Your task to perform on an android device: turn off notifications in google photos Image 0: 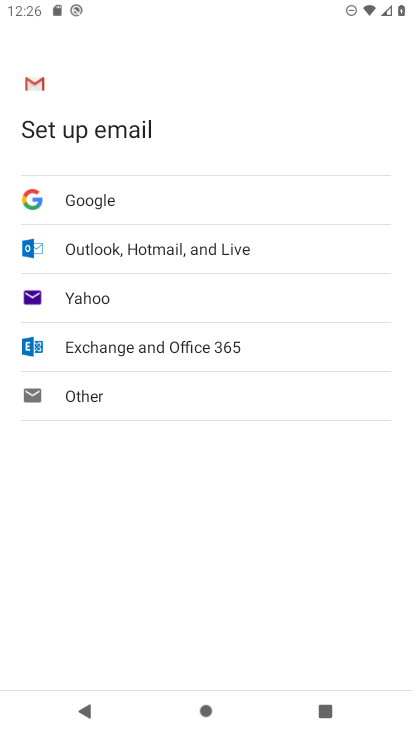
Step 0: press home button
Your task to perform on an android device: turn off notifications in google photos Image 1: 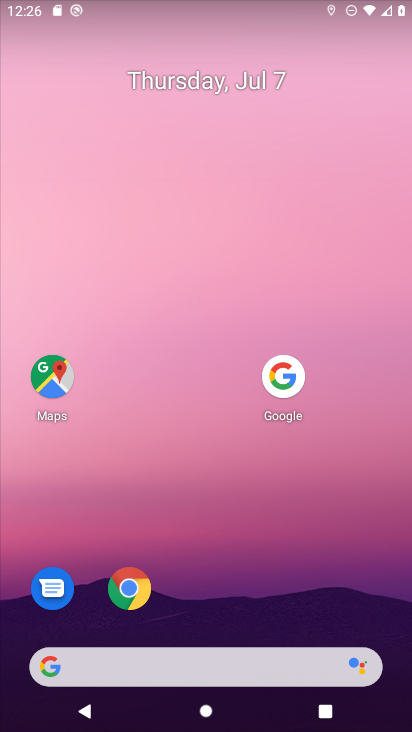
Step 1: drag from (214, 659) to (337, 186)
Your task to perform on an android device: turn off notifications in google photos Image 2: 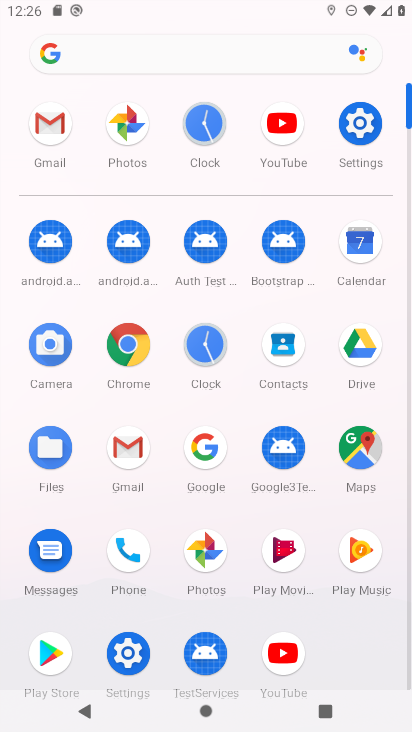
Step 2: click (210, 557)
Your task to perform on an android device: turn off notifications in google photos Image 3: 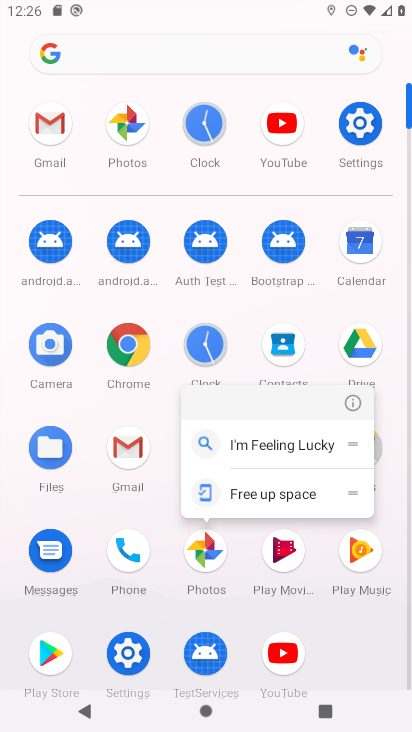
Step 3: click (205, 550)
Your task to perform on an android device: turn off notifications in google photos Image 4: 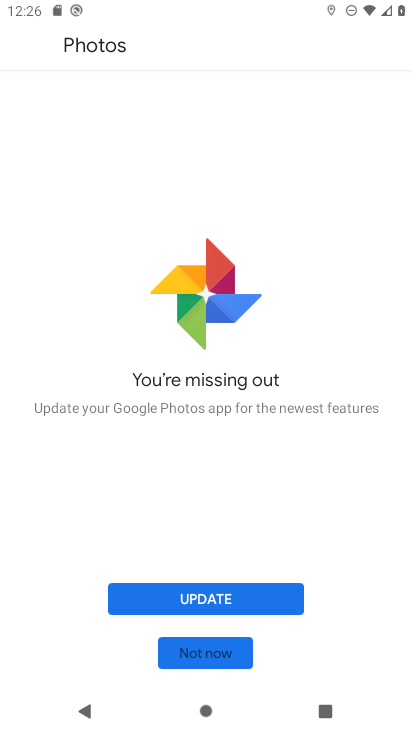
Step 4: click (220, 651)
Your task to perform on an android device: turn off notifications in google photos Image 5: 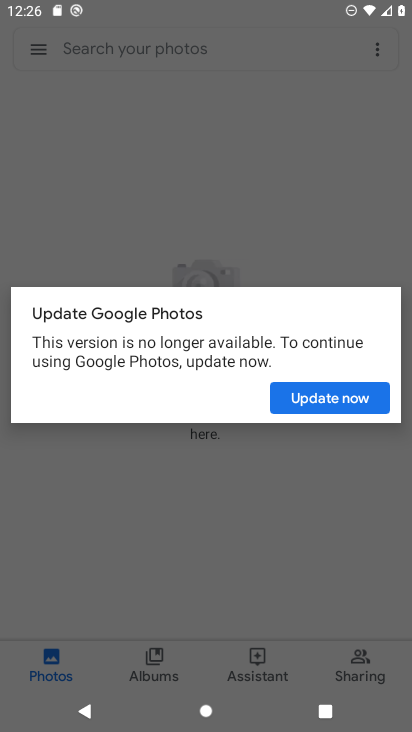
Step 5: click (330, 399)
Your task to perform on an android device: turn off notifications in google photos Image 6: 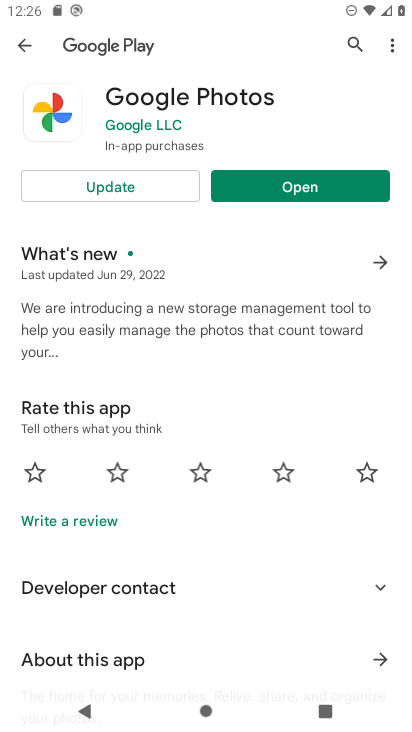
Step 6: click (334, 192)
Your task to perform on an android device: turn off notifications in google photos Image 7: 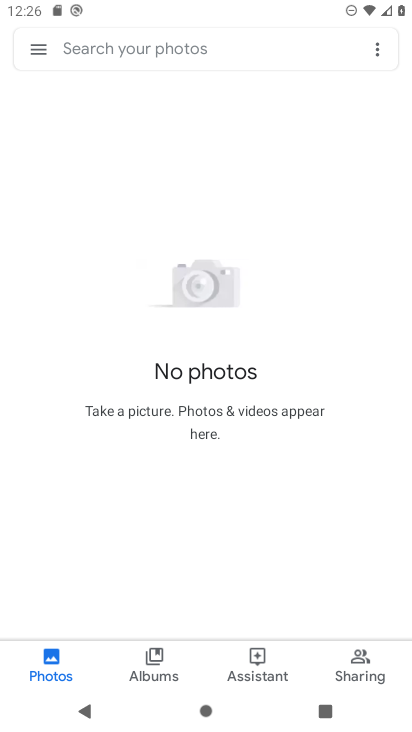
Step 7: click (37, 45)
Your task to perform on an android device: turn off notifications in google photos Image 8: 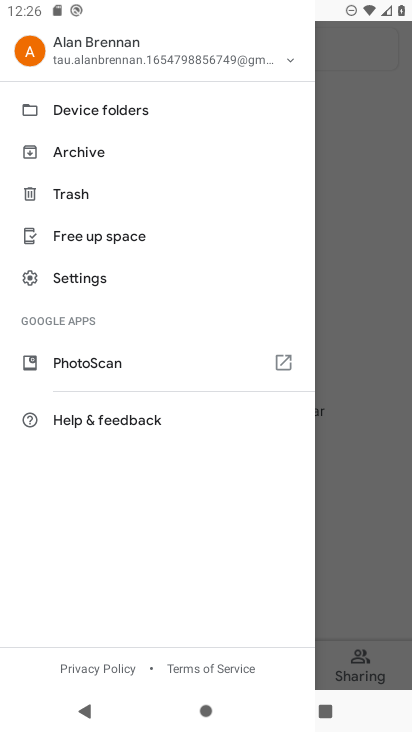
Step 8: click (90, 281)
Your task to perform on an android device: turn off notifications in google photos Image 9: 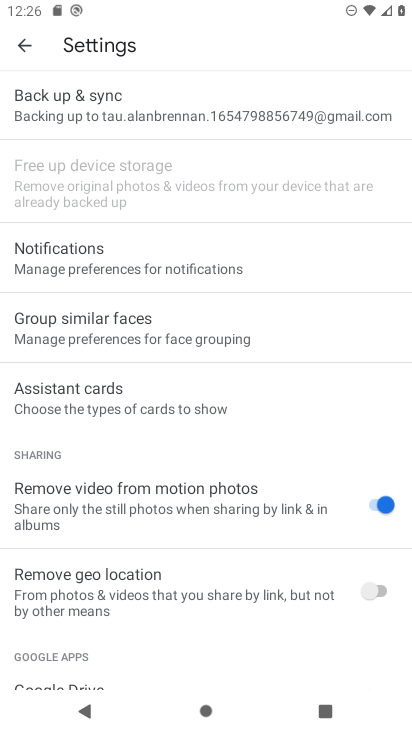
Step 9: drag from (255, 619) to (335, 317)
Your task to perform on an android device: turn off notifications in google photos Image 10: 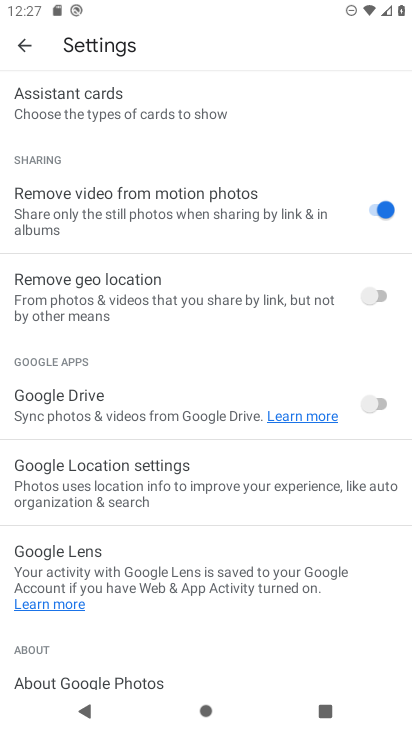
Step 10: drag from (188, 632) to (333, 159)
Your task to perform on an android device: turn off notifications in google photos Image 11: 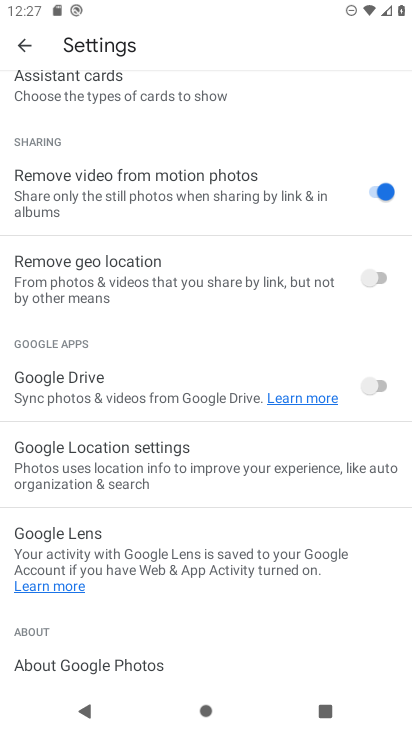
Step 11: drag from (225, 160) to (200, 691)
Your task to perform on an android device: turn off notifications in google photos Image 12: 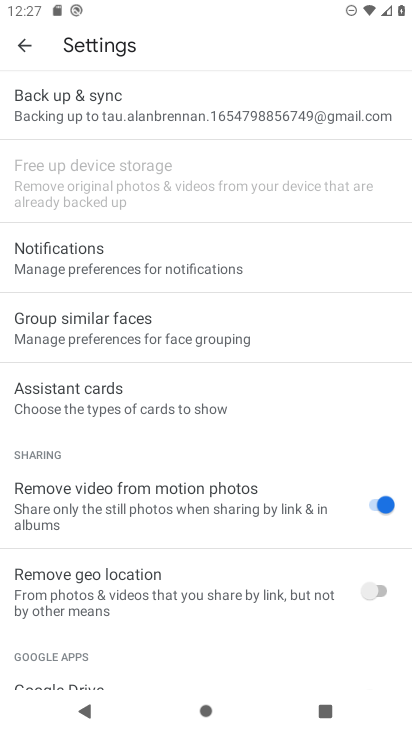
Step 12: click (169, 254)
Your task to perform on an android device: turn off notifications in google photos Image 13: 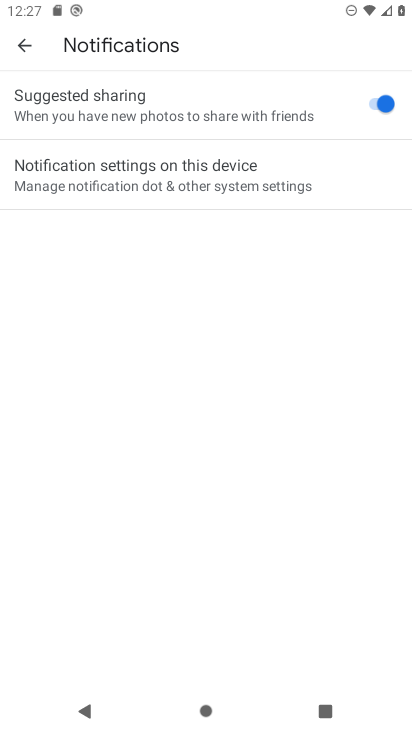
Step 13: click (214, 175)
Your task to perform on an android device: turn off notifications in google photos Image 14: 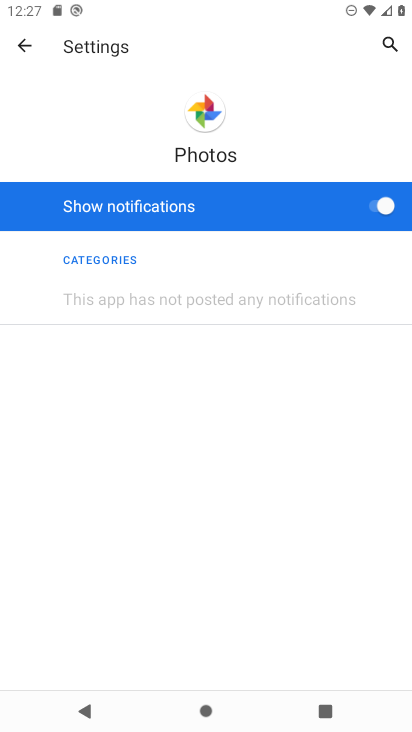
Step 14: click (375, 209)
Your task to perform on an android device: turn off notifications in google photos Image 15: 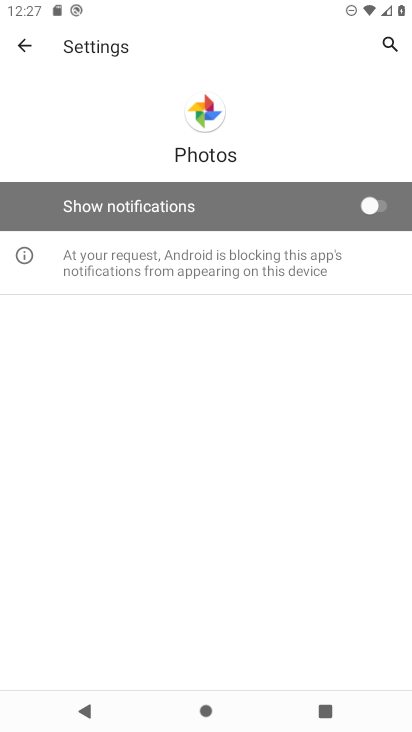
Step 15: task complete